Your task to perform on an android device: open sync settings in chrome Image 0: 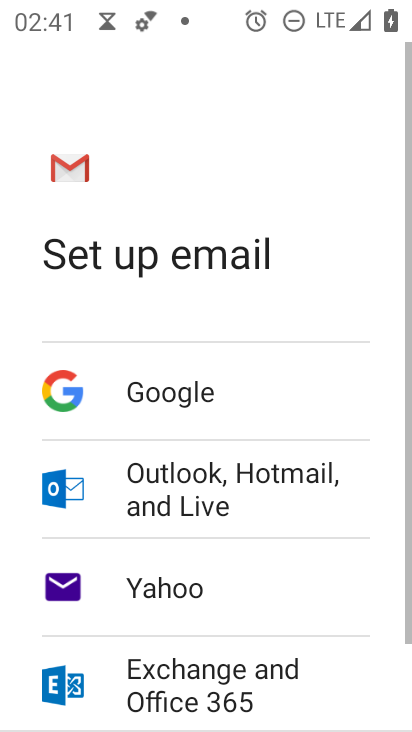
Step 0: press back button
Your task to perform on an android device: open sync settings in chrome Image 1: 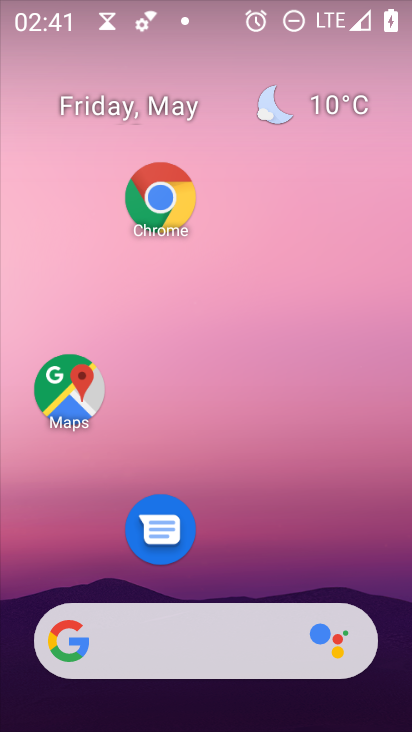
Step 1: click (169, 178)
Your task to perform on an android device: open sync settings in chrome Image 2: 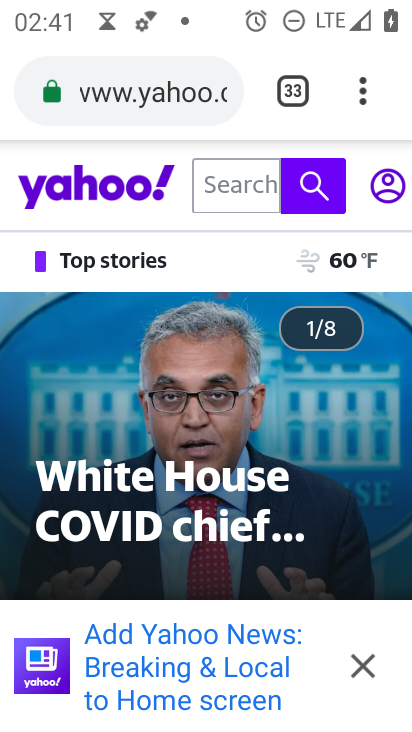
Step 2: click (339, 81)
Your task to perform on an android device: open sync settings in chrome Image 3: 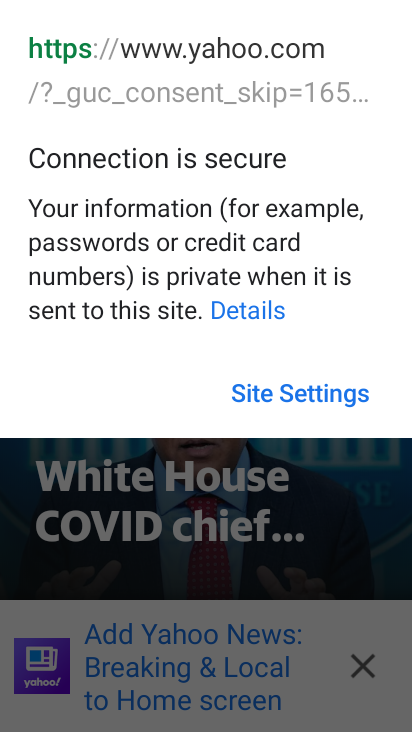
Step 3: press back button
Your task to perform on an android device: open sync settings in chrome Image 4: 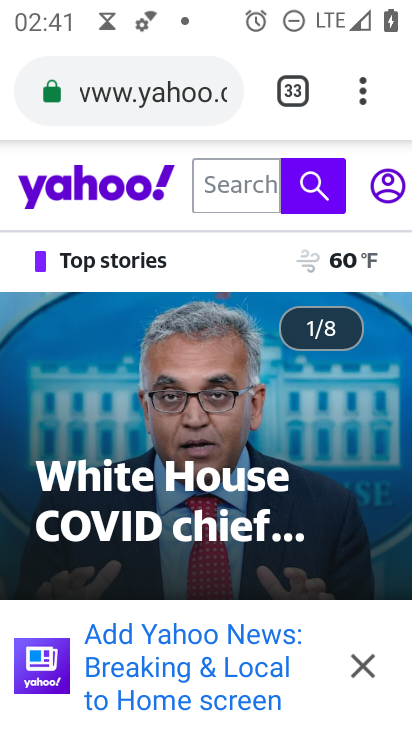
Step 4: click (385, 84)
Your task to perform on an android device: open sync settings in chrome Image 5: 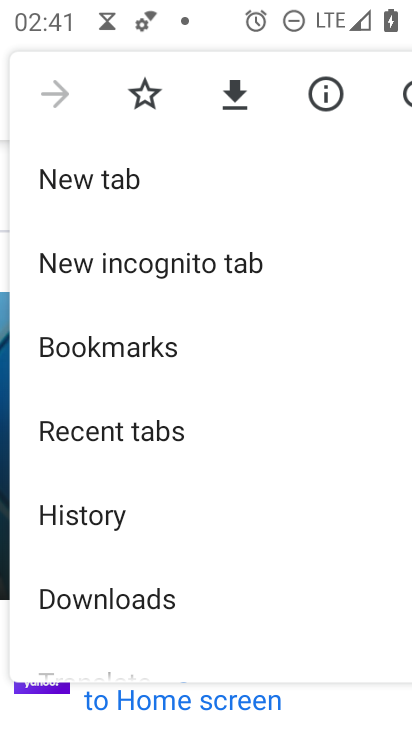
Step 5: click (106, 194)
Your task to perform on an android device: open sync settings in chrome Image 6: 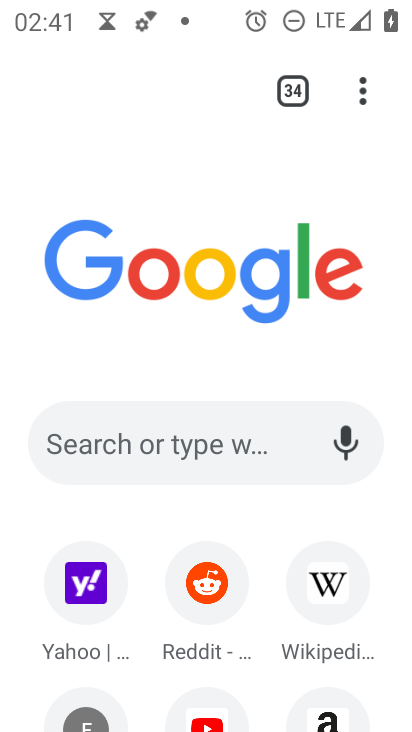
Step 6: click (357, 83)
Your task to perform on an android device: open sync settings in chrome Image 7: 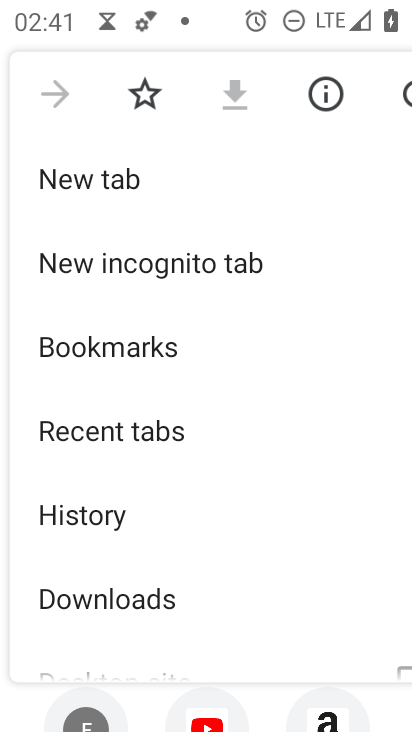
Step 7: drag from (156, 552) to (216, 164)
Your task to perform on an android device: open sync settings in chrome Image 8: 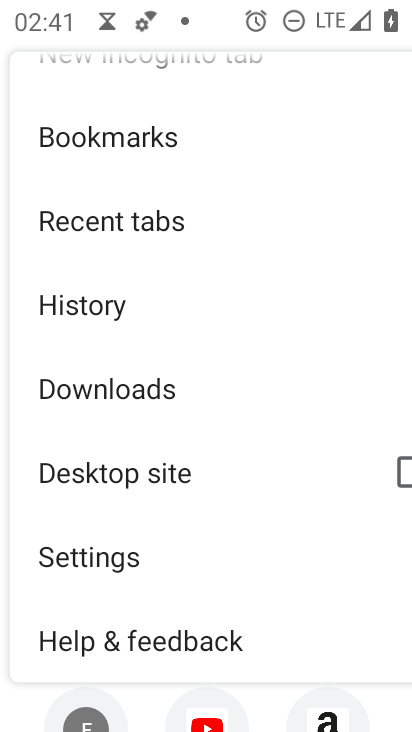
Step 8: click (142, 545)
Your task to perform on an android device: open sync settings in chrome Image 9: 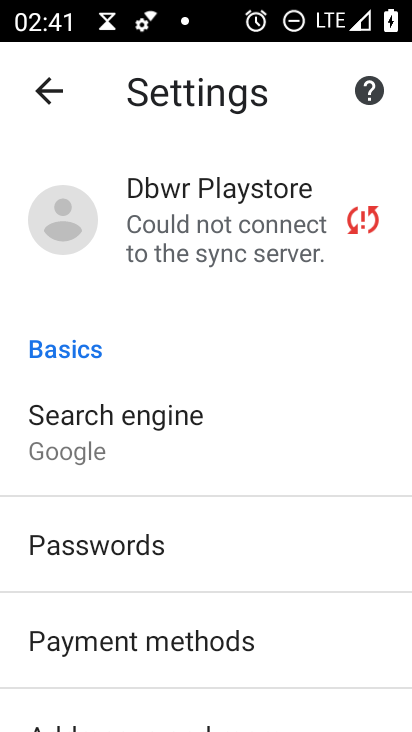
Step 9: click (238, 197)
Your task to perform on an android device: open sync settings in chrome Image 10: 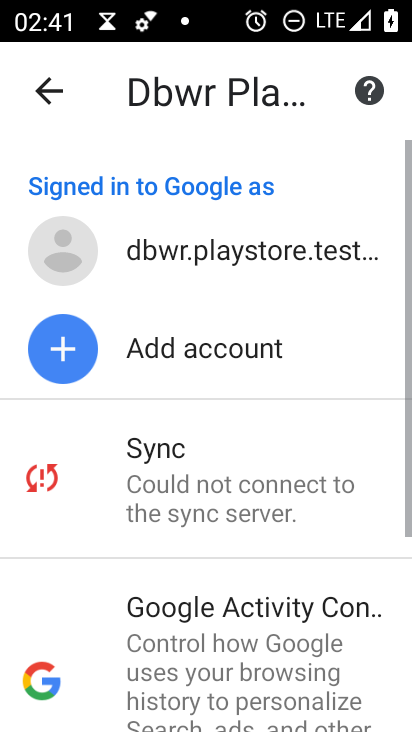
Step 10: task complete